Your task to perform on an android device: Open wifi settings Image 0: 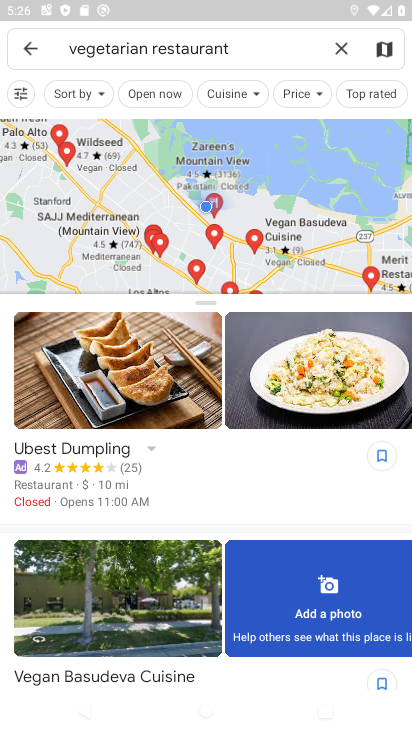
Step 0: press home button
Your task to perform on an android device: Open wifi settings Image 1: 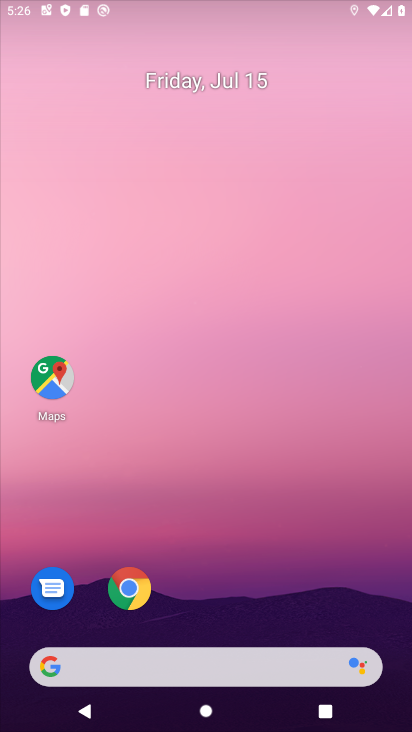
Step 1: drag from (173, 682) to (276, 39)
Your task to perform on an android device: Open wifi settings Image 2: 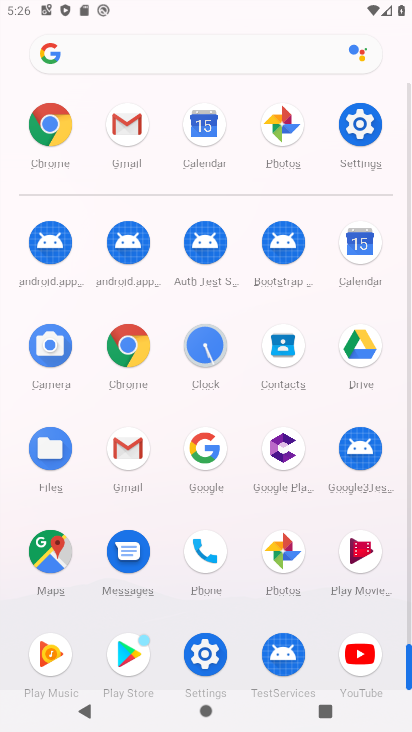
Step 2: click (362, 130)
Your task to perform on an android device: Open wifi settings Image 3: 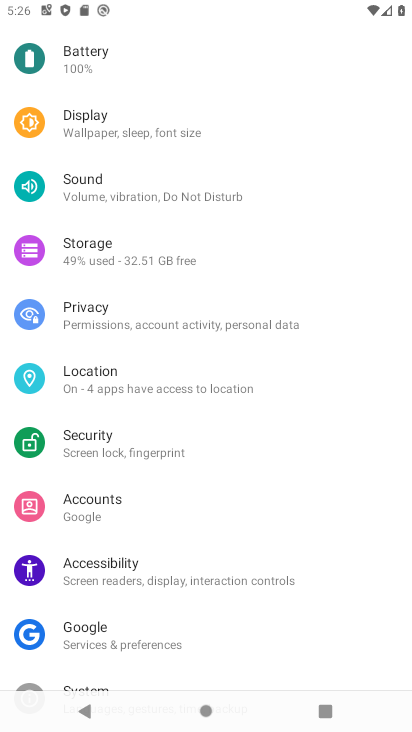
Step 3: drag from (151, 125) to (131, 612)
Your task to perform on an android device: Open wifi settings Image 4: 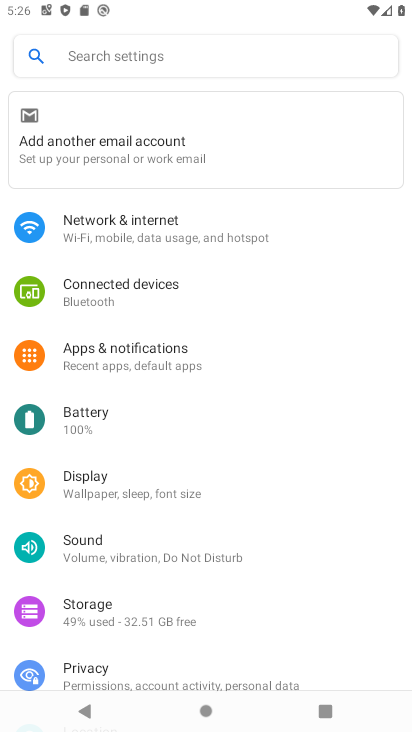
Step 4: click (116, 224)
Your task to perform on an android device: Open wifi settings Image 5: 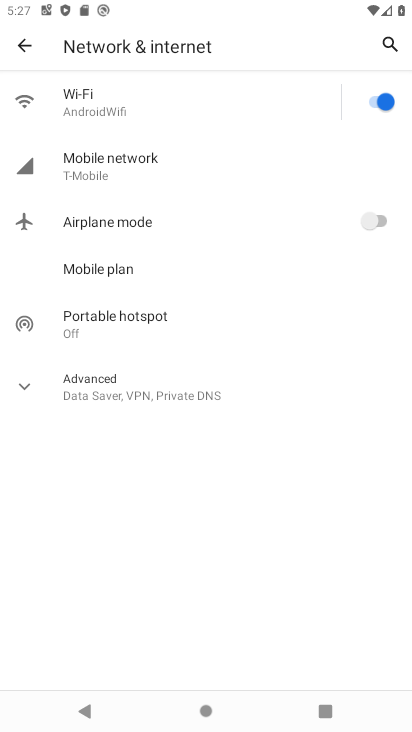
Step 5: task complete